Your task to perform on an android device: Open calendar and show me the fourth week of next month Image 0: 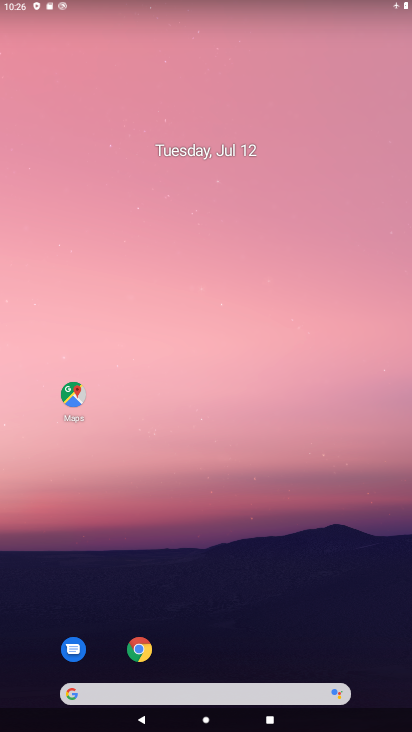
Step 0: drag from (379, 656) to (342, 184)
Your task to perform on an android device: Open calendar and show me the fourth week of next month Image 1: 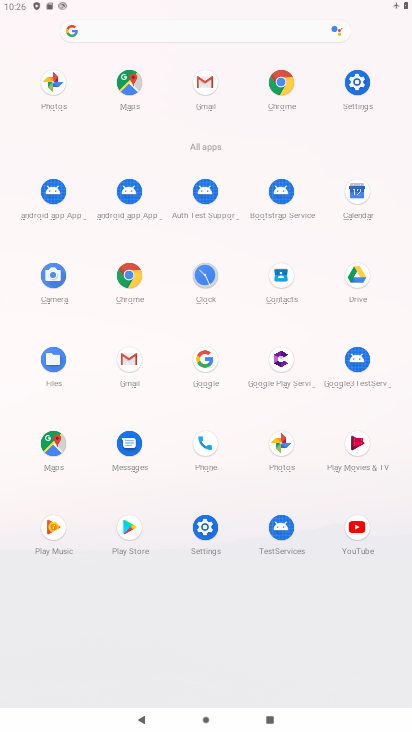
Step 1: click (357, 192)
Your task to perform on an android device: Open calendar and show me the fourth week of next month Image 2: 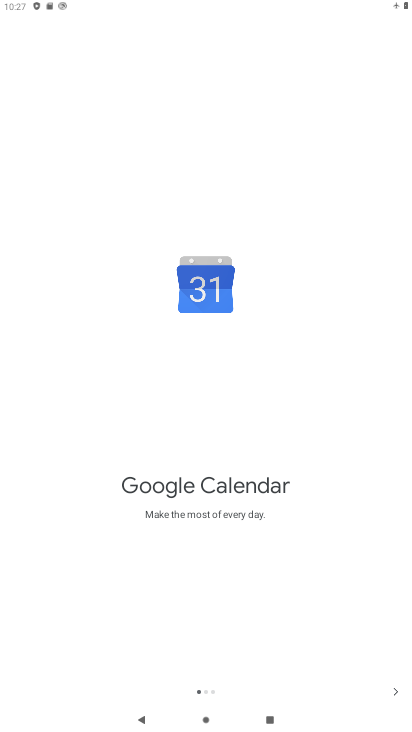
Step 2: click (394, 691)
Your task to perform on an android device: Open calendar and show me the fourth week of next month Image 3: 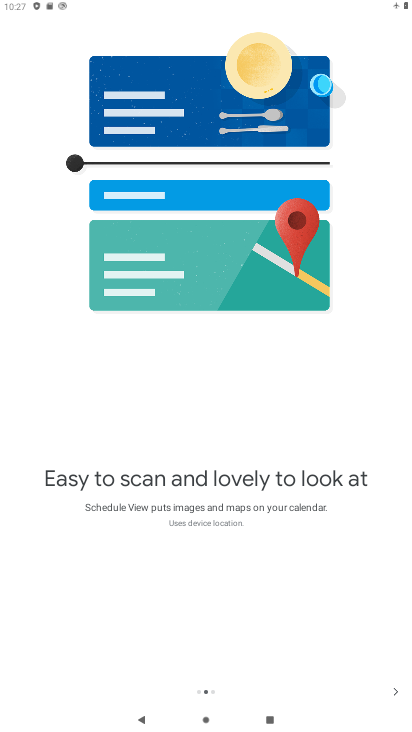
Step 3: click (394, 691)
Your task to perform on an android device: Open calendar and show me the fourth week of next month Image 4: 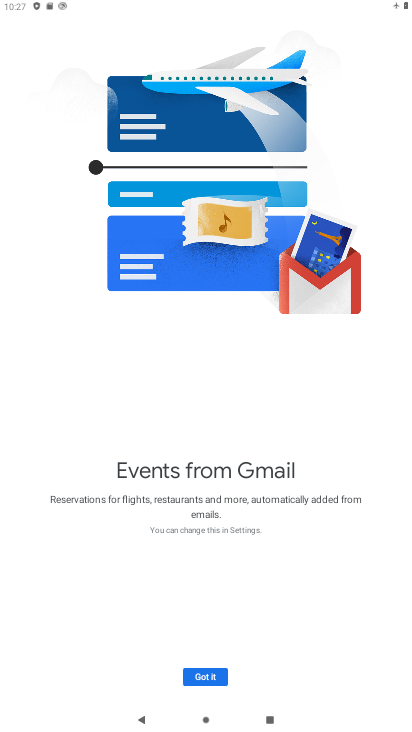
Step 4: click (204, 674)
Your task to perform on an android device: Open calendar and show me the fourth week of next month Image 5: 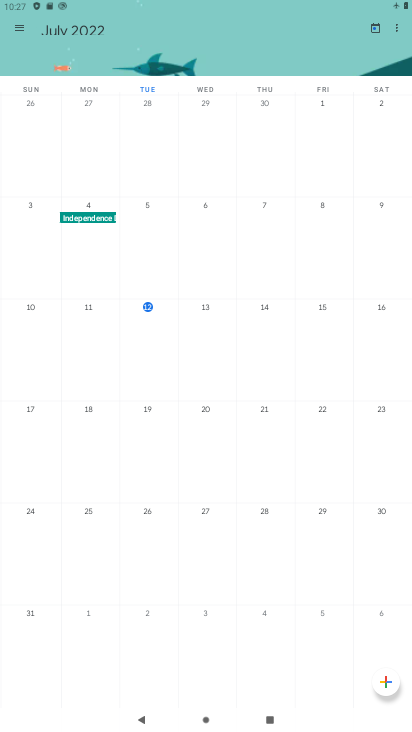
Step 5: click (22, 26)
Your task to perform on an android device: Open calendar and show me the fourth week of next month Image 6: 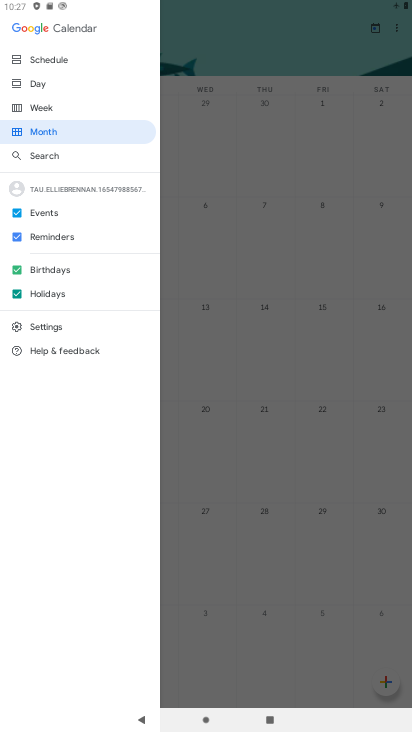
Step 6: click (45, 103)
Your task to perform on an android device: Open calendar and show me the fourth week of next month Image 7: 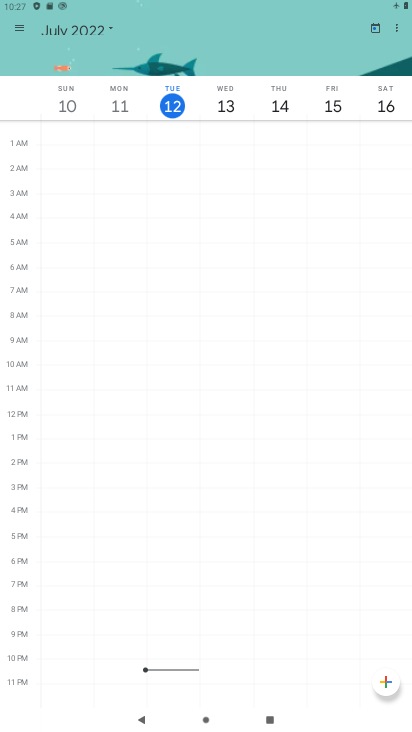
Step 7: click (109, 22)
Your task to perform on an android device: Open calendar and show me the fourth week of next month Image 8: 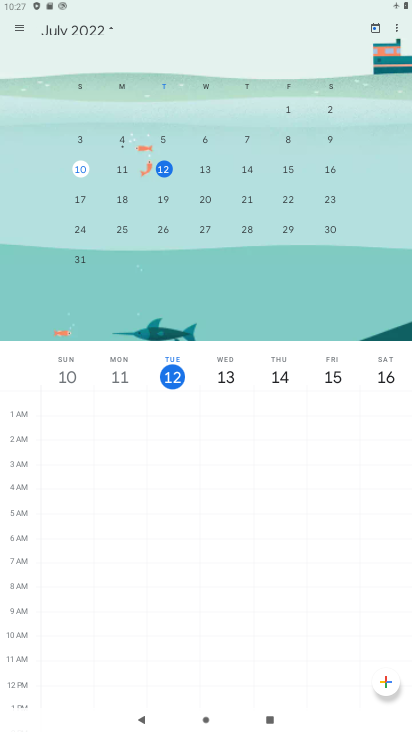
Step 8: drag from (339, 222) to (66, 180)
Your task to perform on an android device: Open calendar and show me the fourth week of next month Image 9: 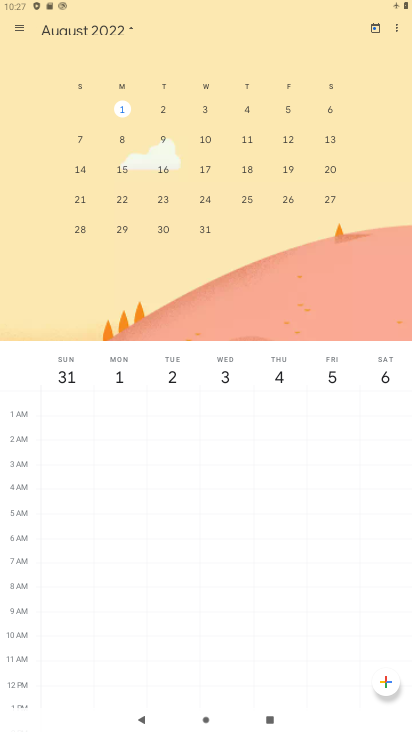
Step 9: click (80, 233)
Your task to perform on an android device: Open calendar and show me the fourth week of next month Image 10: 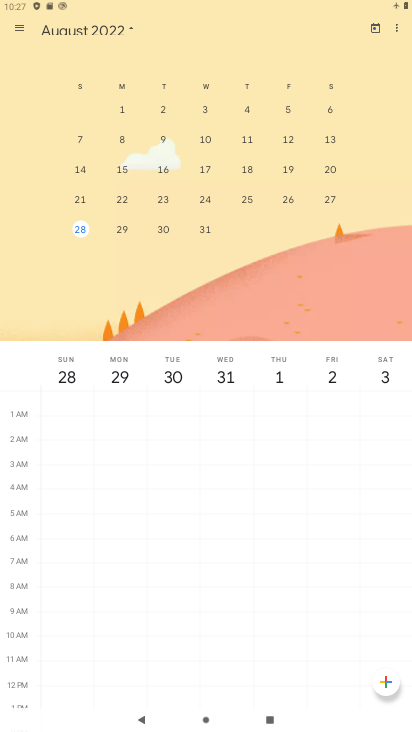
Step 10: task complete